Your task to perform on an android device: turn on wifi Image 0: 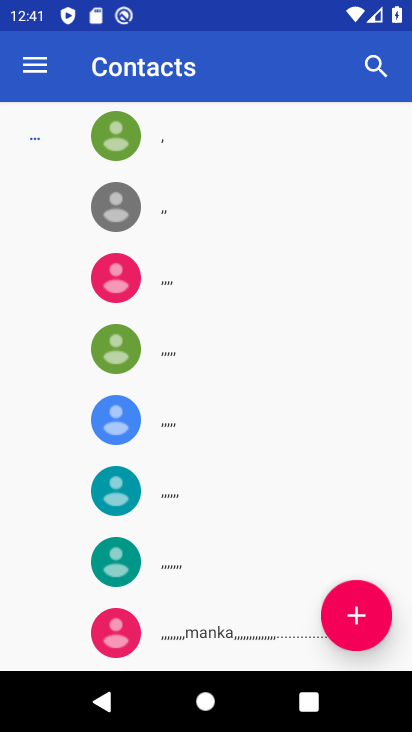
Step 0: press home button
Your task to perform on an android device: turn on wifi Image 1: 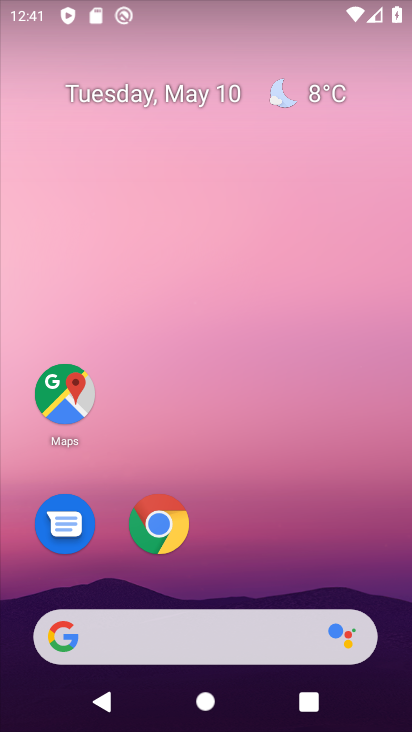
Step 1: drag from (269, 497) to (301, 65)
Your task to perform on an android device: turn on wifi Image 2: 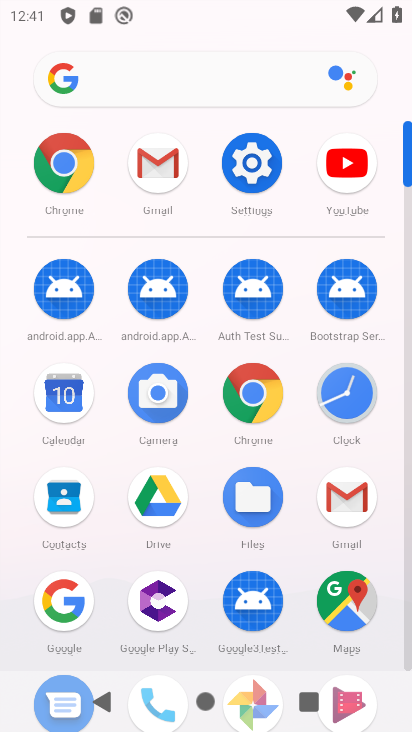
Step 2: click (254, 163)
Your task to perform on an android device: turn on wifi Image 3: 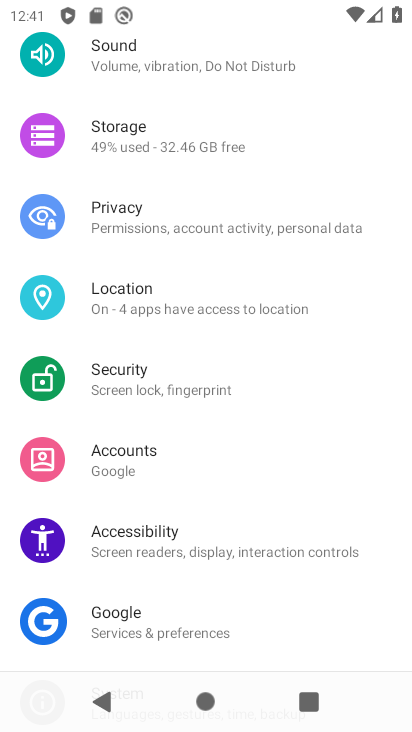
Step 3: drag from (249, 187) to (174, 624)
Your task to perform on an android device: turn on wifi Image 4: 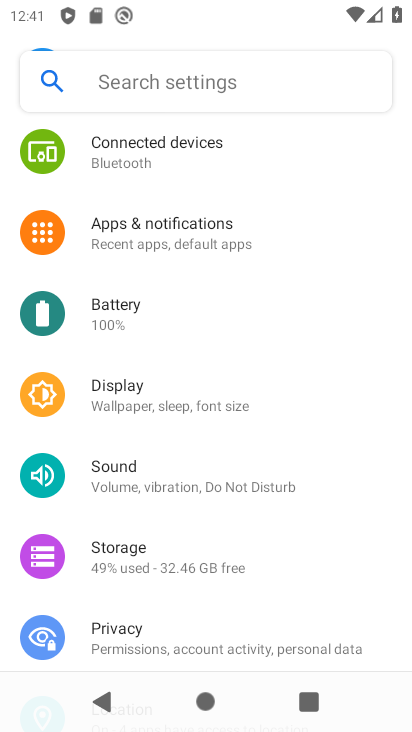
Step 4: drag from (288, 208) to (267, 512)
Your task to perform on an android device: turn on wifi Image 5: 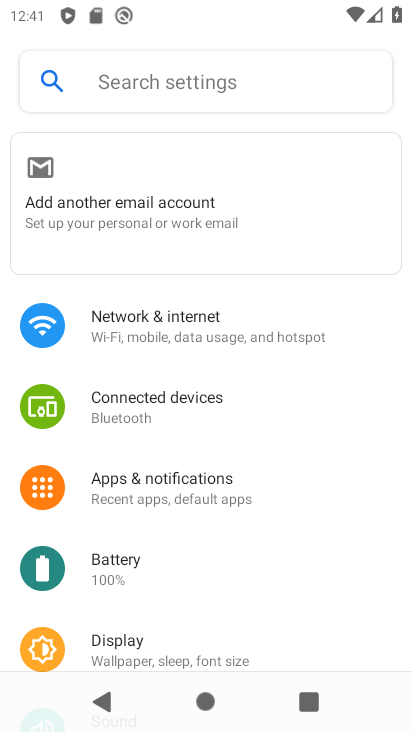
Step 5: click (264, 328)
Your task to perform on an android device: turn on wifi Image 6: 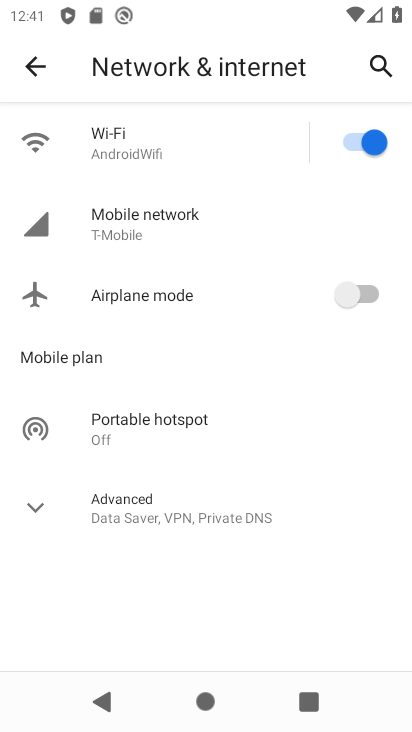
Step 6: task complete